Your task to perform on an android device: What is the speed of a cheetah? Image 0: 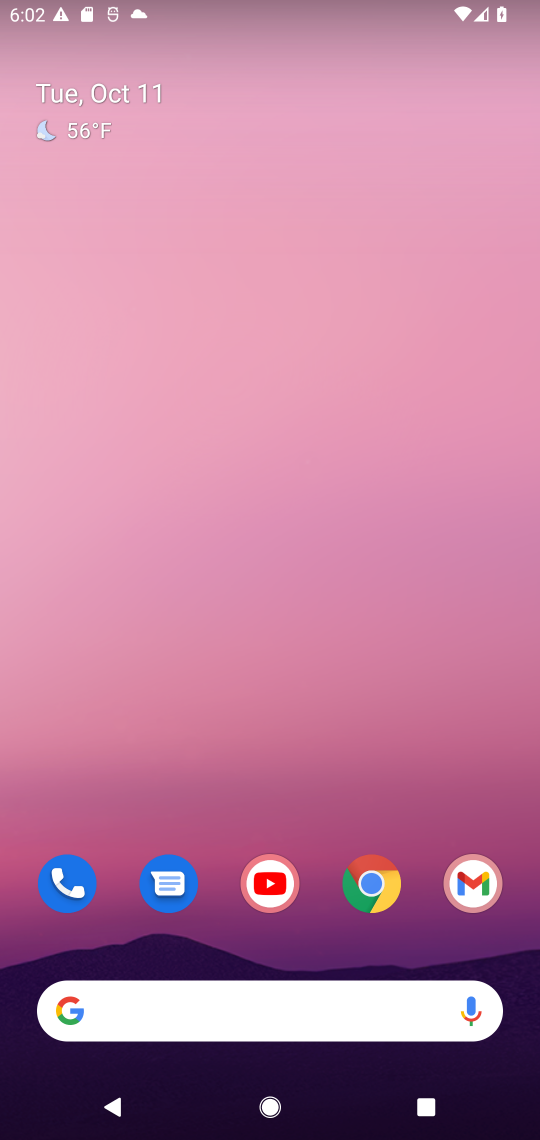
Step 0: drag from (331, 936) to (254, 94)
Your task to perform on an android device: What is the speed of a cheetah? Image 1: 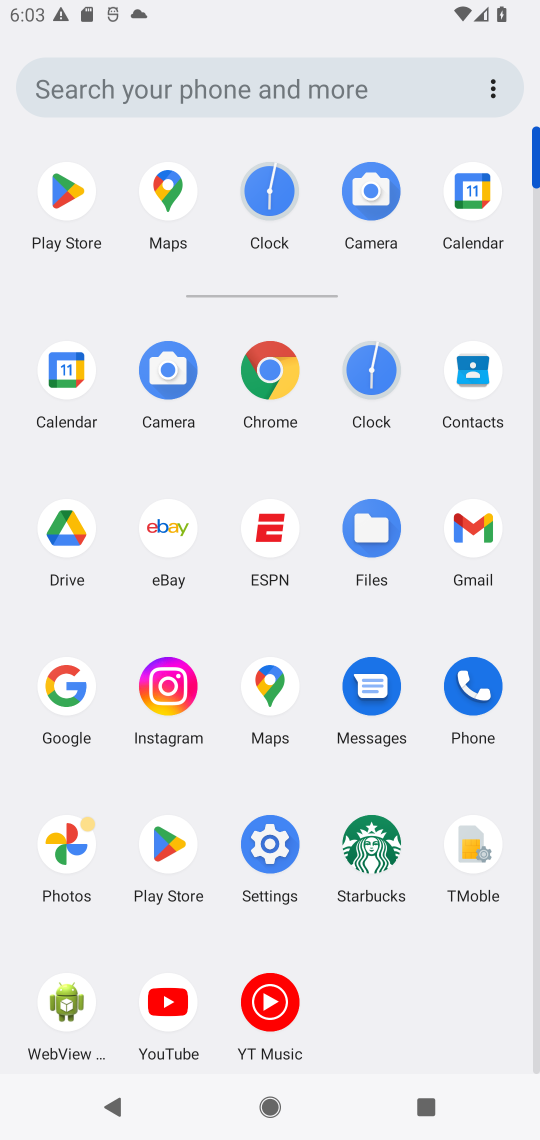
Step 1: click (263, 370)
Your task to perform on an android device: What is the speed of a cheetah? Image 2: 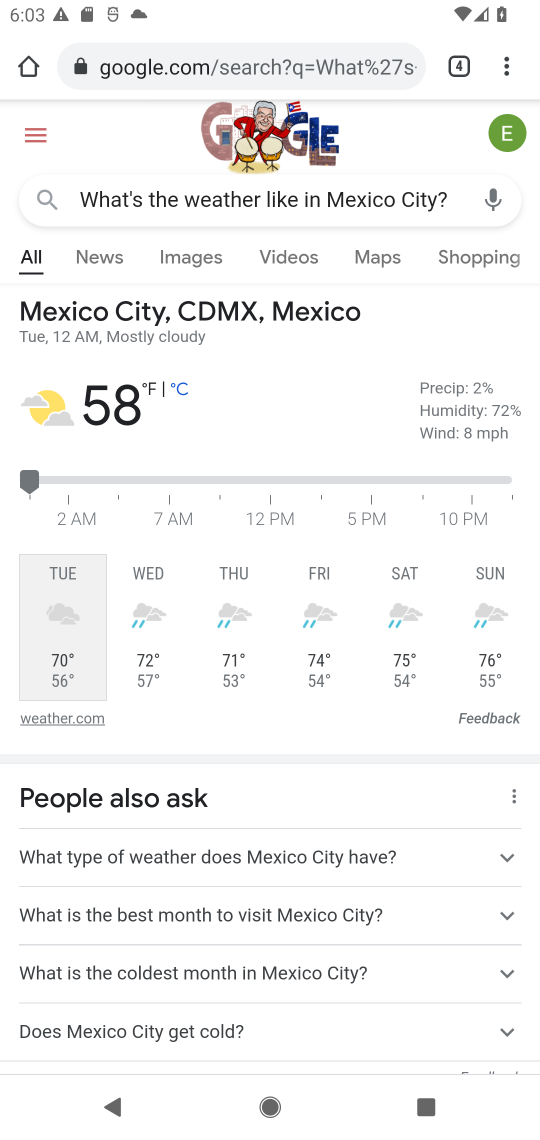
Step 2: click (195, 72)
Your task to perform on an android device: What is the speed of a cheetah? Image 3: 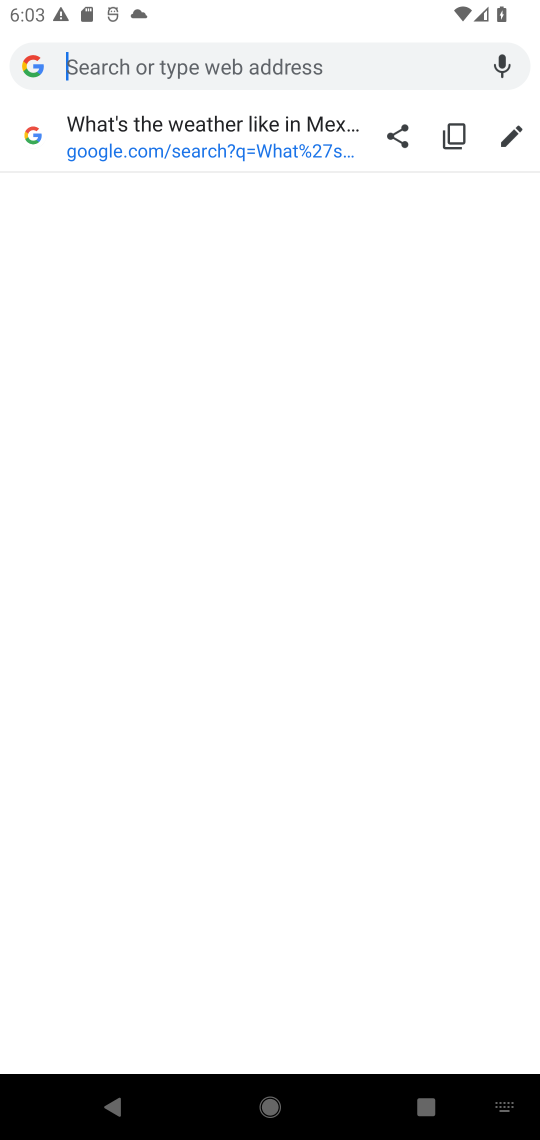
Step 3: type "What is the speed of a  cheetah?"
Your task to perform on an android device: What is the speed of a cheetah? Image 4: 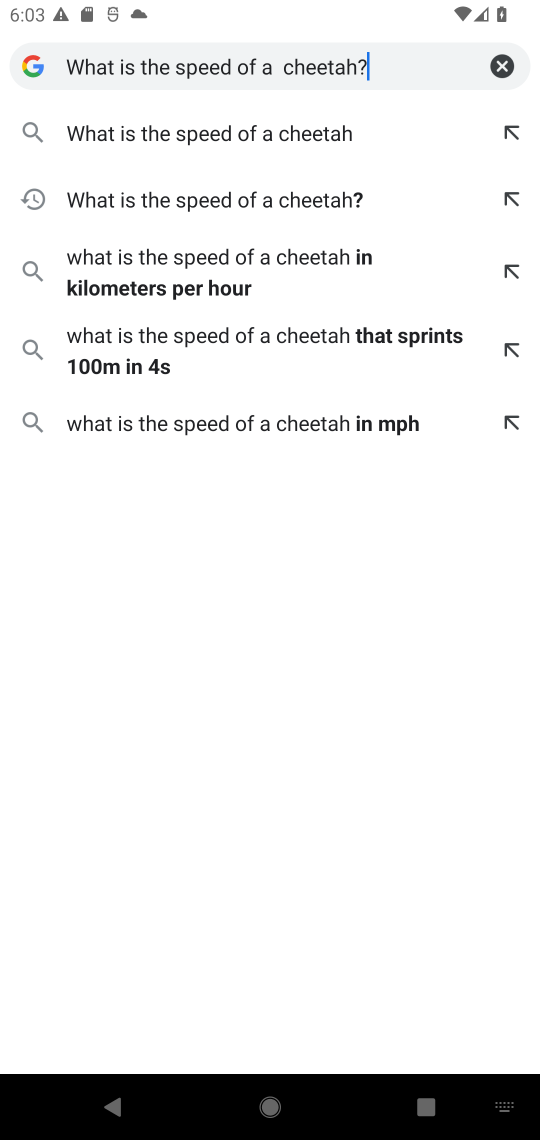
Step 4: press enter
Your task to perform on an android device: What is the speed of a cheetah? Image 5: 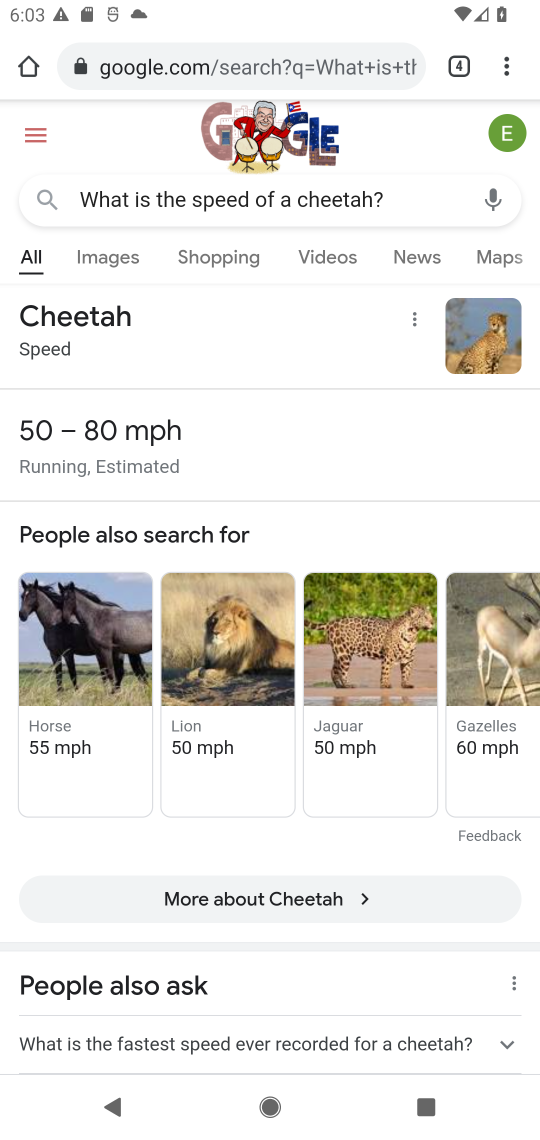
Step 5: task complete